Your task to perform on an android device: Go to Yahoo.com Image 0: 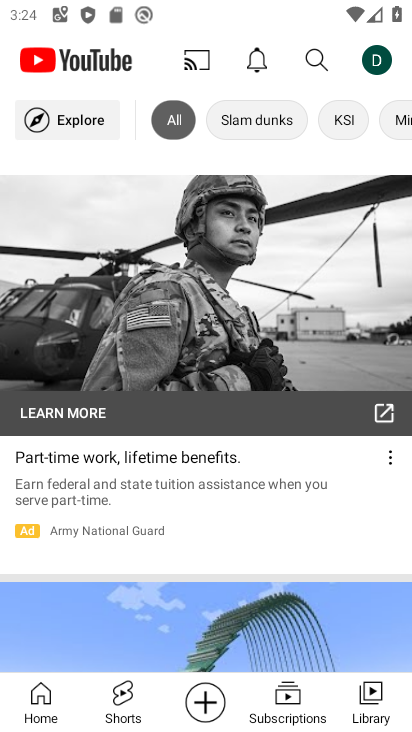
Step 0: press home button
Your task to perform on an android device: Go to Yahoo.com Image 1: 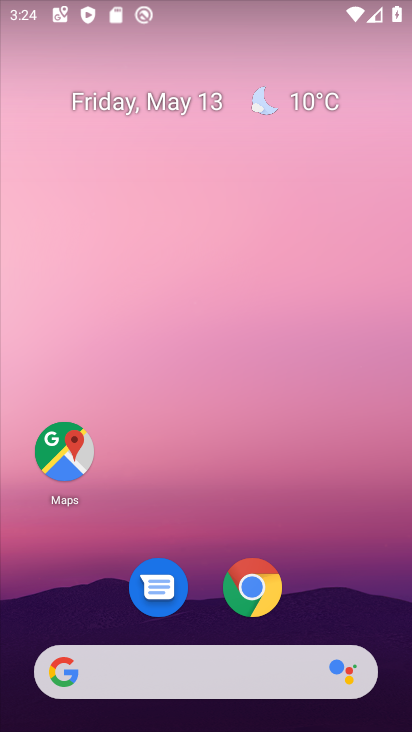
Step 1: click (259, 569)
Your task to perform on an android device: Go to Yahoo.com Image 2: 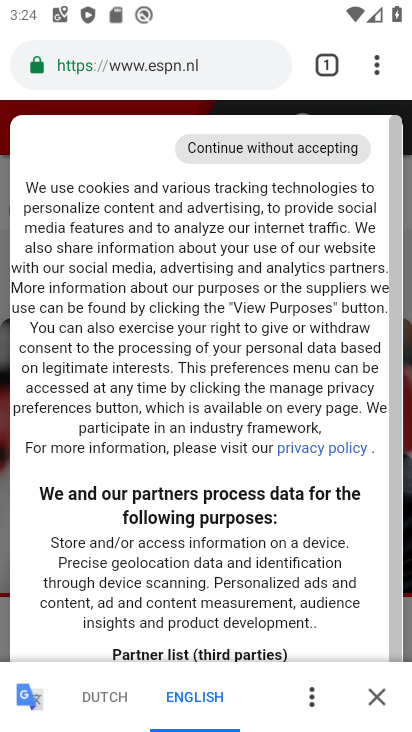
Step 2: click (126, 51)
Your task to perform on an android device: Go to Yahoo.com Image 3: 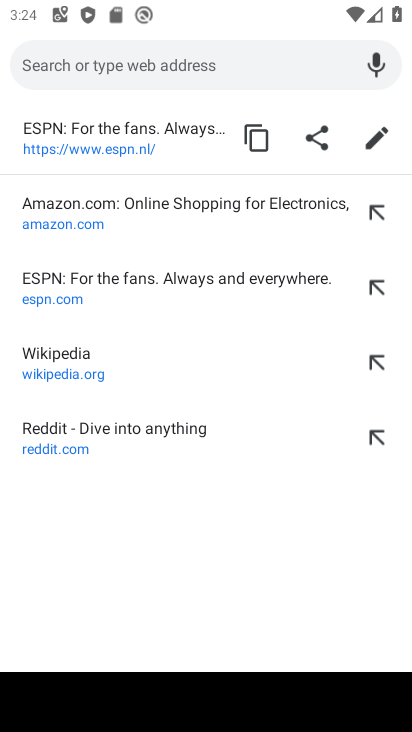
Step 3: type "yahoo.com"
Your task to perform on an android device: Go to Yahoo.com Image 4: 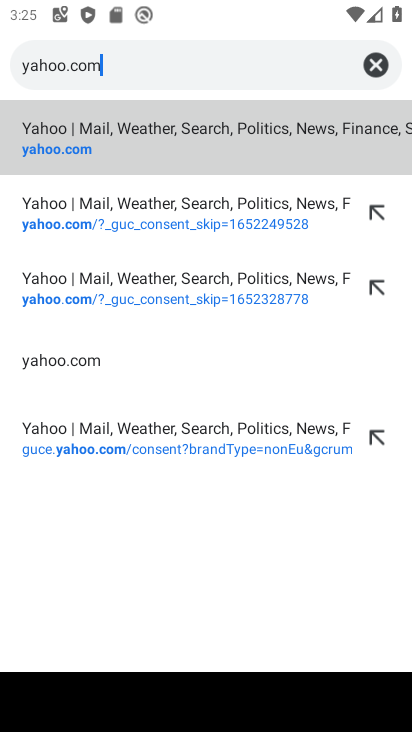
Step 4: click (206, 118)
Your task to perform on an android device: Go to Yahoo.com Image 5: 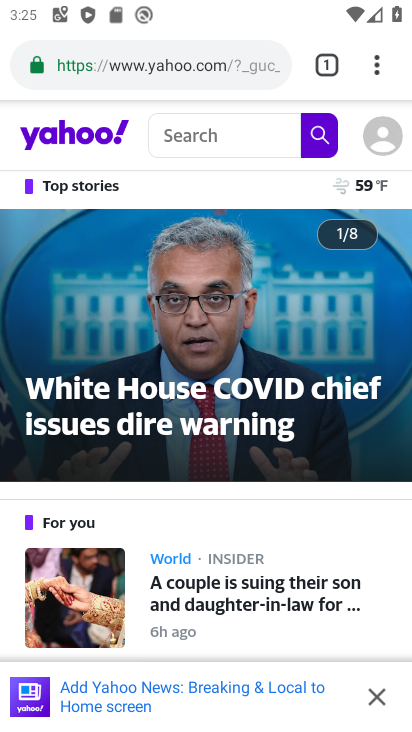
Step 5: task complete